Your task to perform on an android device: install app "PlayWell" Image 0: 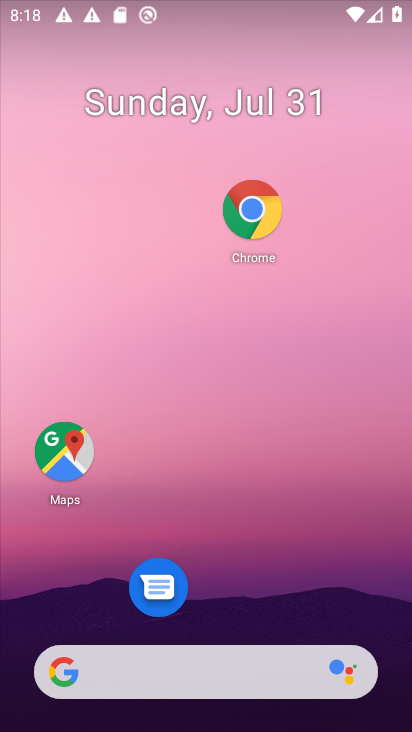
Step 0: drag from (224, 233) to (170, 116)
Your task to perform on an android device: install app "PlayWell" Image 1: 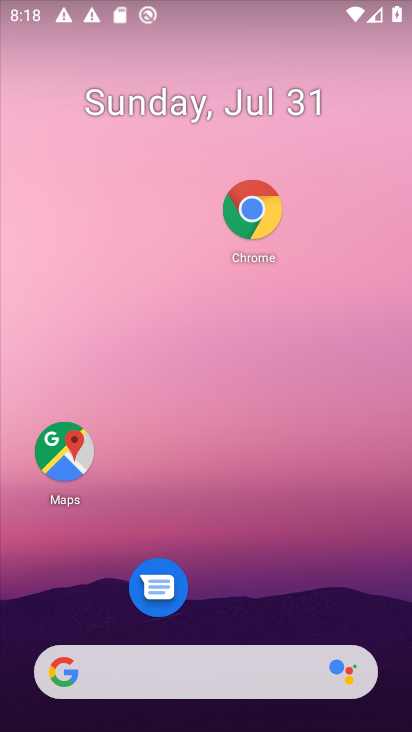
Step 1: drag from (214, 423) to (164, 0)
Your task to perform on an android device: install app "PlayWell" Image 2: 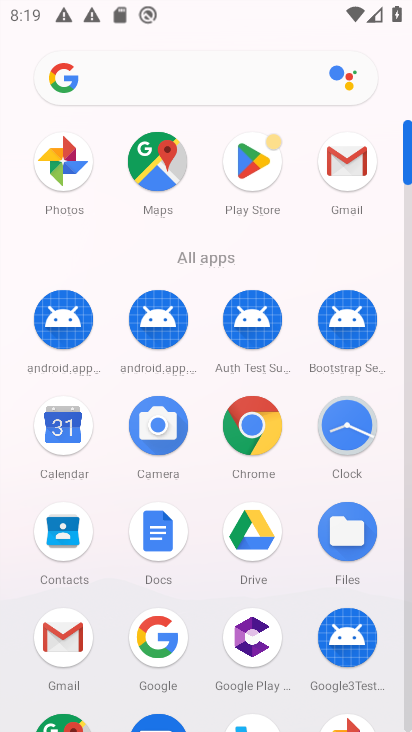
Step 2: click (265, 163)
Your task to perform on an android device: install app "PlayWell" Image 3: 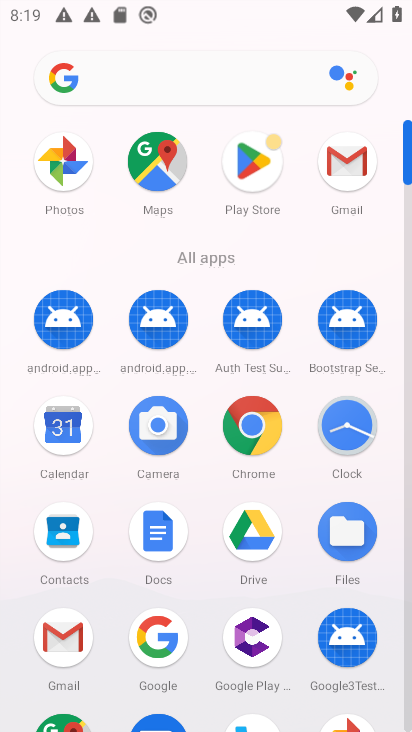
Step 3: click (269, 158)
Your task to perform on an android device: install app "PlayWell" Image 4: 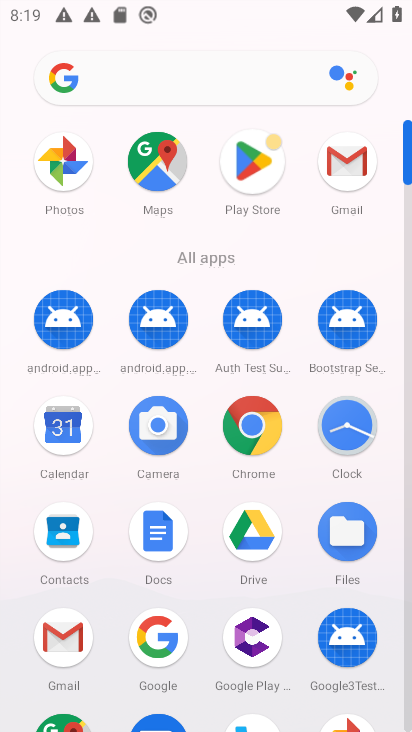
Step 4: click (272, 159)
Your task to perform on an android device: install app "PlayWell" Image 5: 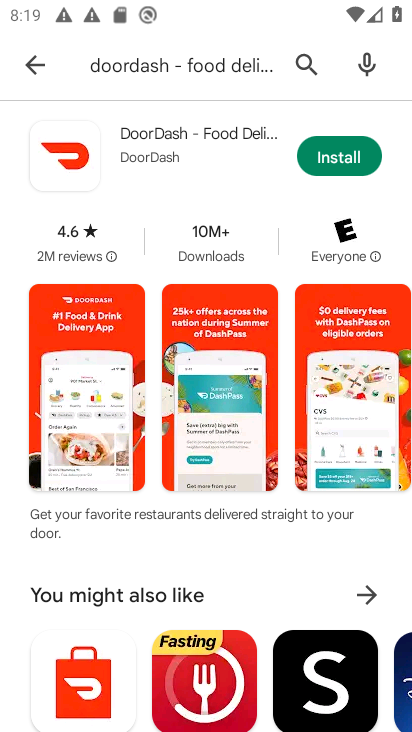
Step 5: click (262, 161)
Your task to perform on an android device: install app "PlayWell" Image 6: 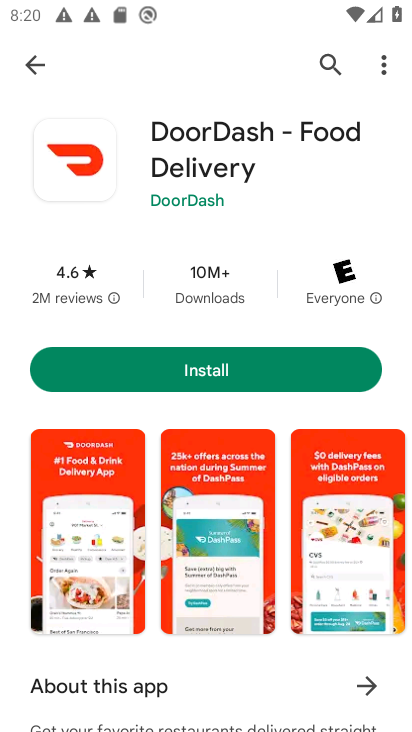
Step 6: click (33, 63)
Your task to perform on an android device: install app "PlayWell" Image 7: 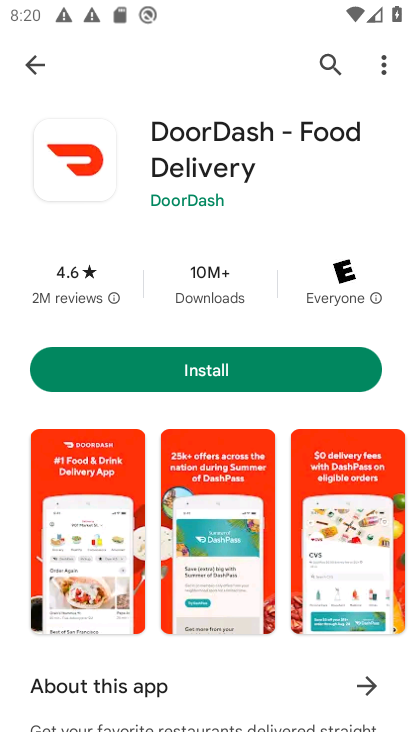
Step 7: click (60, 81)
Your task to perform on an android device: install app "PlayWell" Image 8: 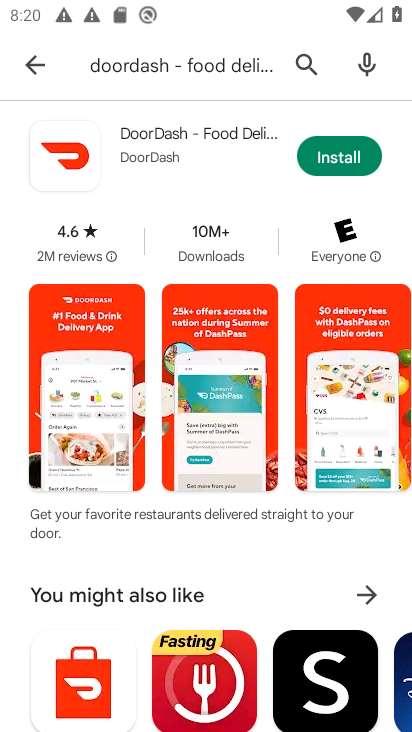
Step 8: click (65, 83)
Your task to perform on an android device: install app "PlayWell" Image 9: 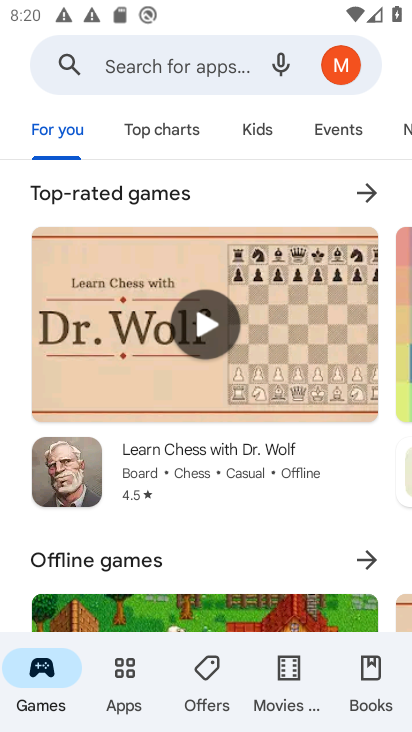
Step 9: click (127, 69)
Your task to perform on an android device: install app "PlayWell" Image 10: 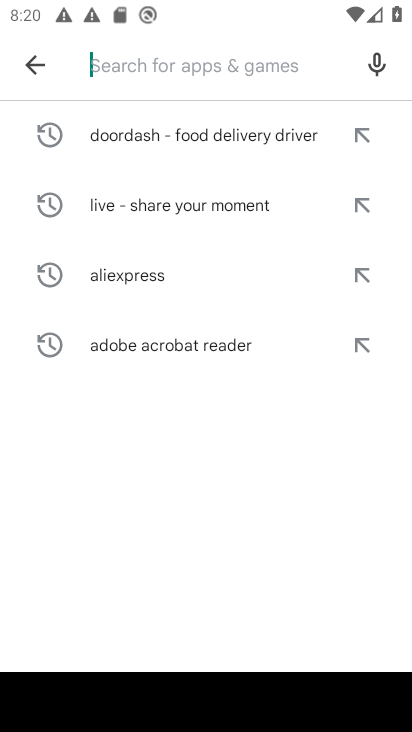
Step 10: click (143, 86)
Your task to perform on an android device: install app "PlayWell" Image 11: 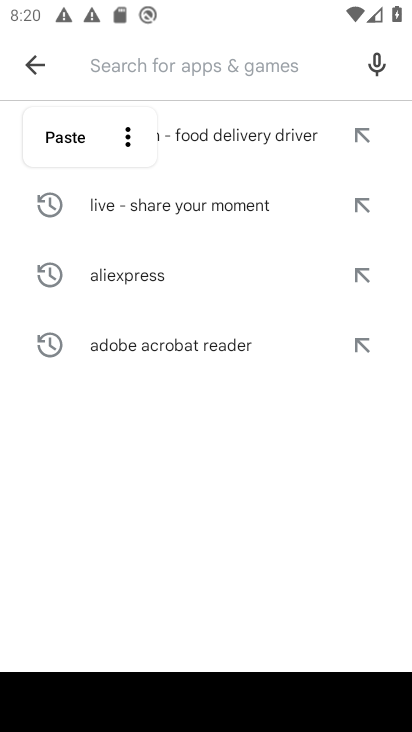
Step 11: type "playwell"
Your task to perform on an android device: install app "PlayWell" Image 12: 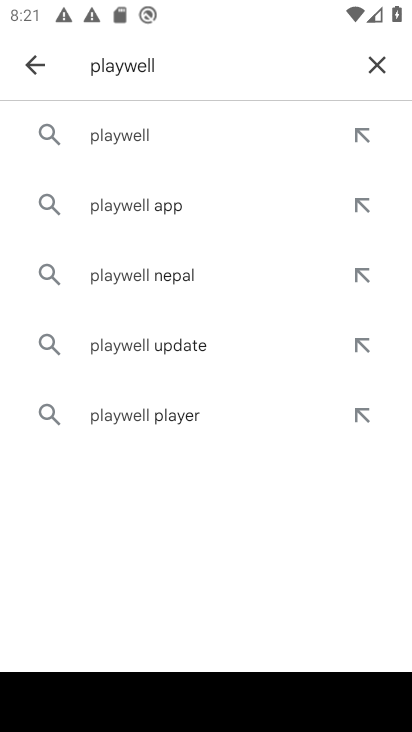
Step 12: click (98, 132)
Your task to perform on an android device: install app "PlayWell" Image 13: 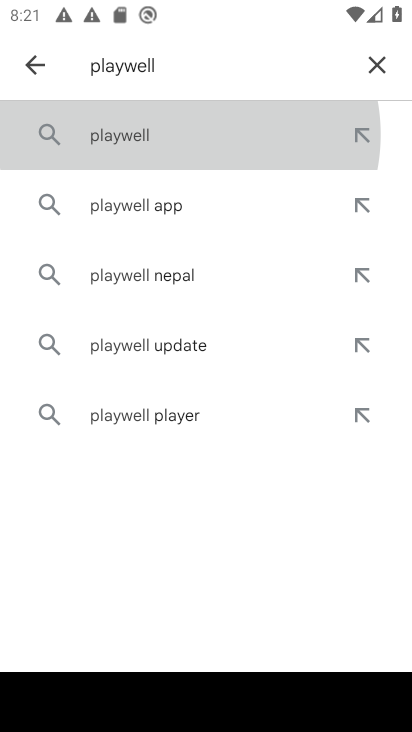
Step 13: click (99, 130)
Your task to perform on an android device: install app "PlayWell" Image 14: 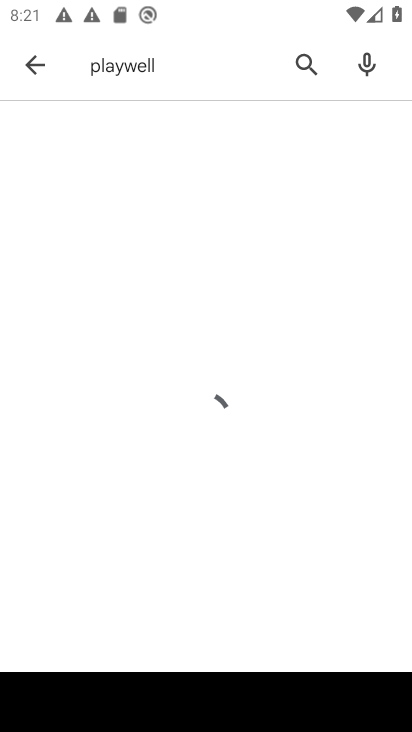
Step 14: click (99, 130)
Your task to perform on an android device: install app "PlayWell" Image 15: 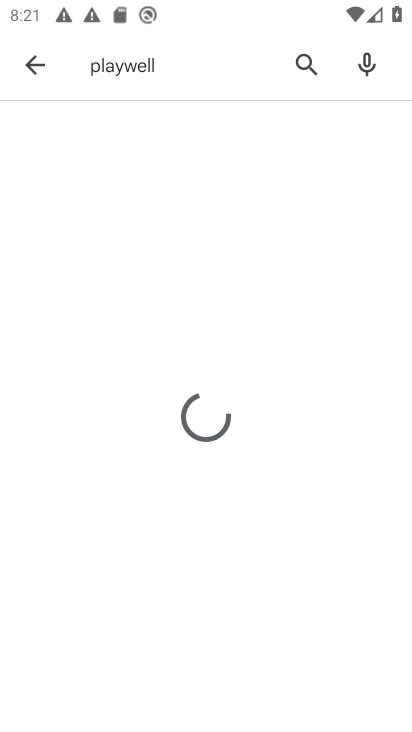
Step 15: click (103, 130)
Your task to perform on an android device: install app "PlayWell" Image 16: 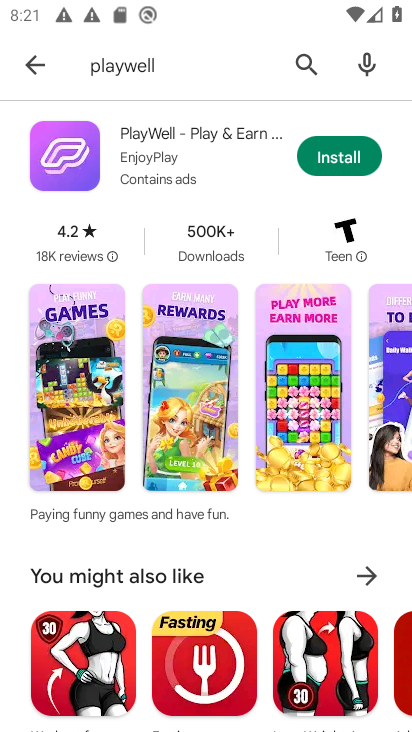
Step 16: click (365, 161)
Your task to perform on an android device: install app "PlayWell" Image 17: 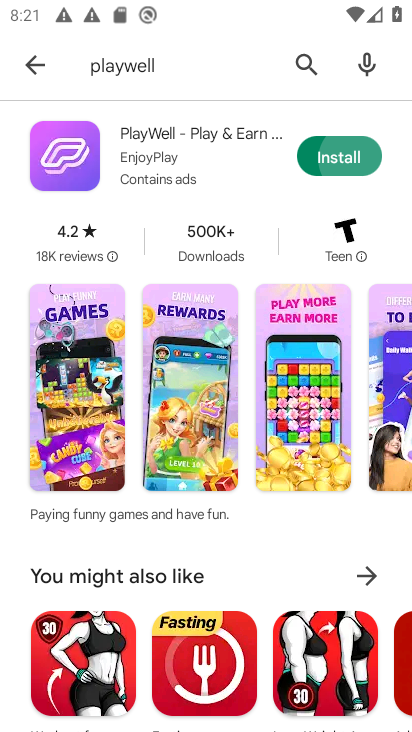
Step 17: click (360, 159)
Your task to perform on an android device: install app "PlayWell" Image 18: 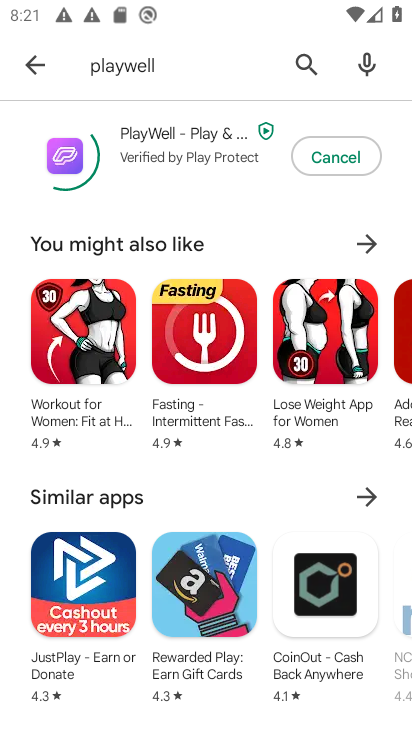
Step 18: click (360, 156)
Your task to perform on an android device: install app "PlayWell" Image 19: 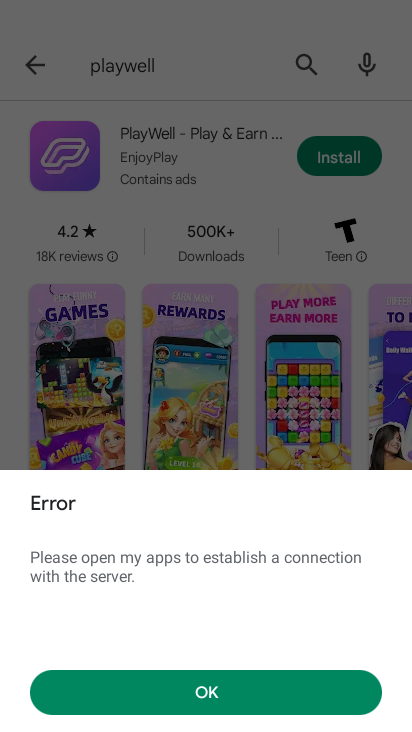
Step 19: click (219, 702)
Your task to perform on an android device: install app "PlayWell" Image 20: 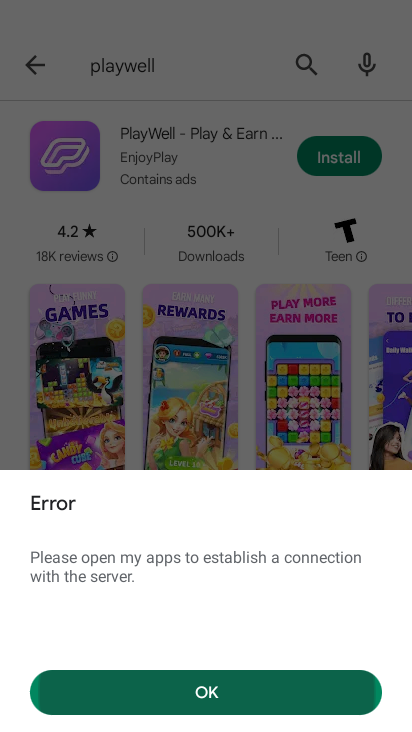
Step 20: click (219, 702)
Your task to perform on an android device: install app "PlayWell" Image 21: 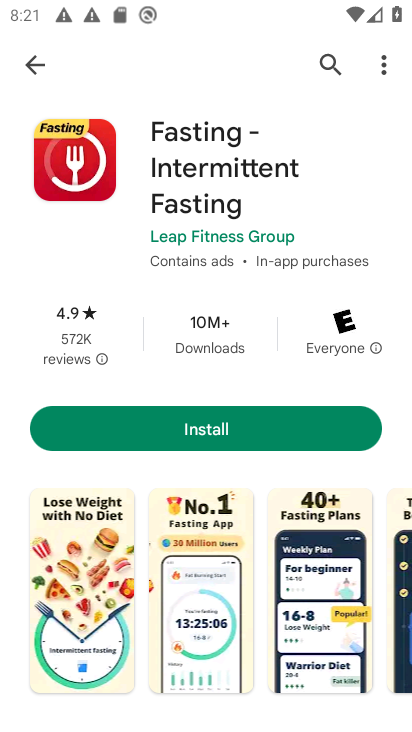
Step 21: task complete